Your task to perform on an android device: empty trash in the gmail app Image 0: 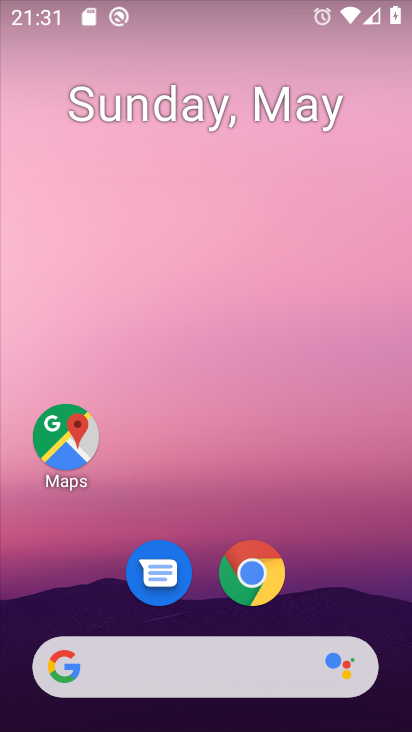
Step 0: drag from (226, 450) to (161, 30)
Your task to perform on an android device: empty trash in the gmail app Image 1: 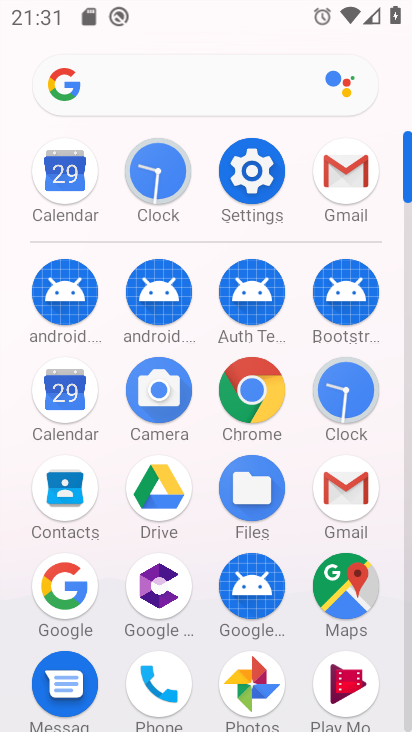
Step 1: click (332, 167)
Your task to perform on an android device: empty trash in the gmail app Image 2: 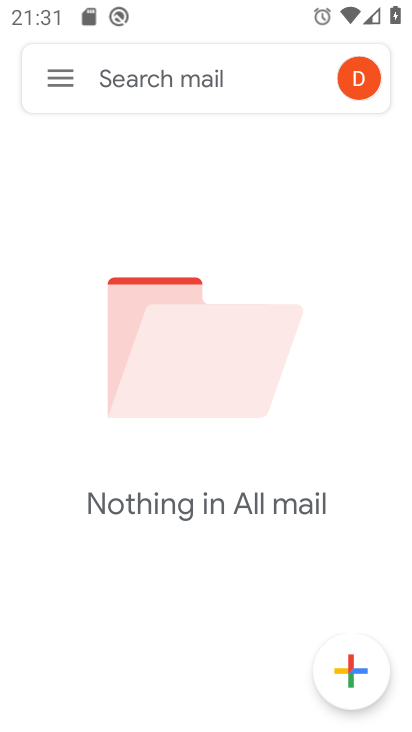
Step 2: click (59, 76)
Your task to perform on an android device: empty trash in the gmail app Image 3: 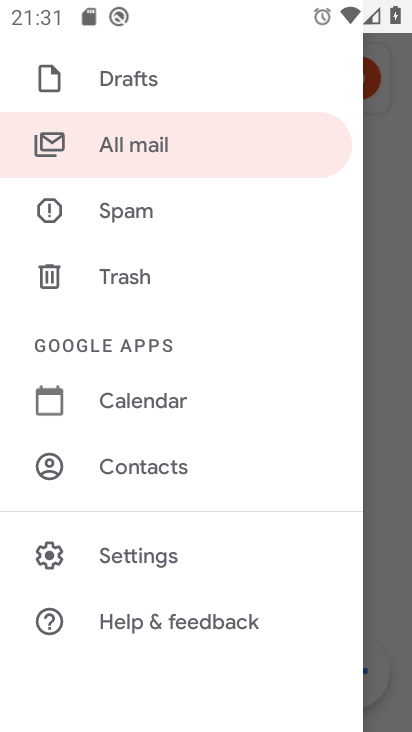
Step 3: click (137, 276)
Your task to perform on an android device: empty trash in the gmail app Image 4: 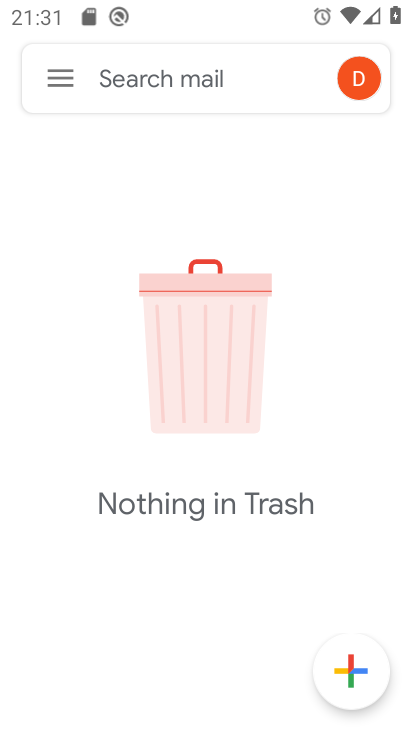
Step 4: task complete